Your task to perform on an android device: Open calendar and show me the second week of next month Image 0: 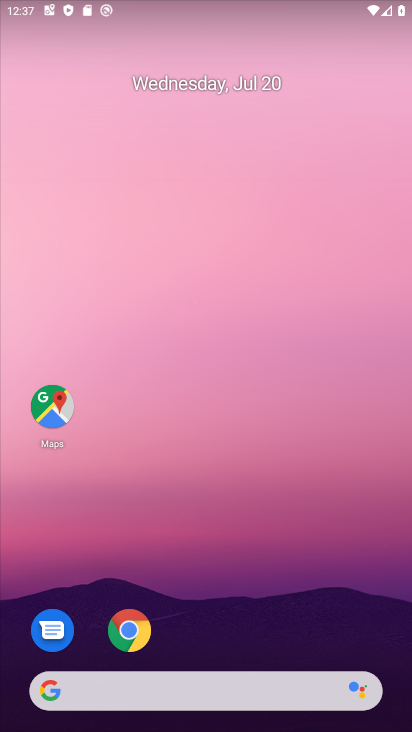
Step 0: press home button
Your task to perform on an android device: Open calendar and show me the second week of next month Image 1: 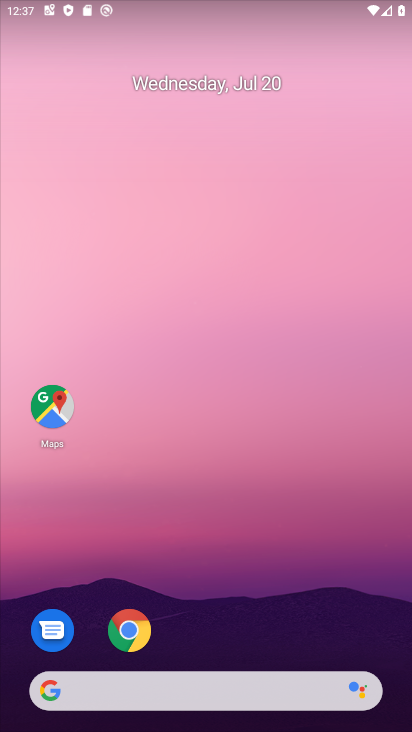
Step 1: drag from (271, 633) to (216, 126)
Your task to perform on an android device: Open calendar and show me the second week of next month Image 2: 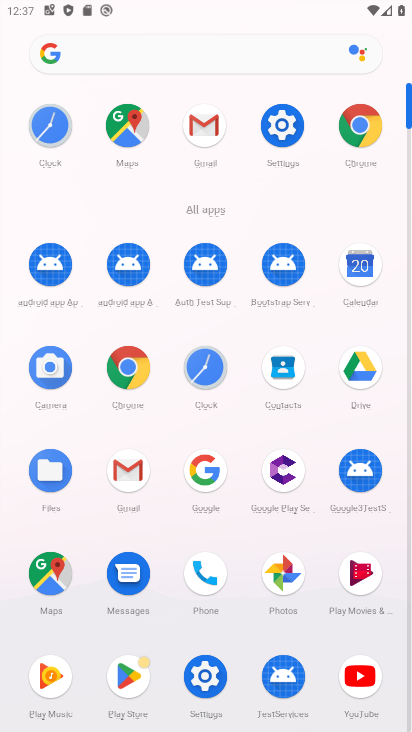
Step 2: click (368, 255)
Your task to perform on an android device: Open calendar and show me the second week of next month Image 3: 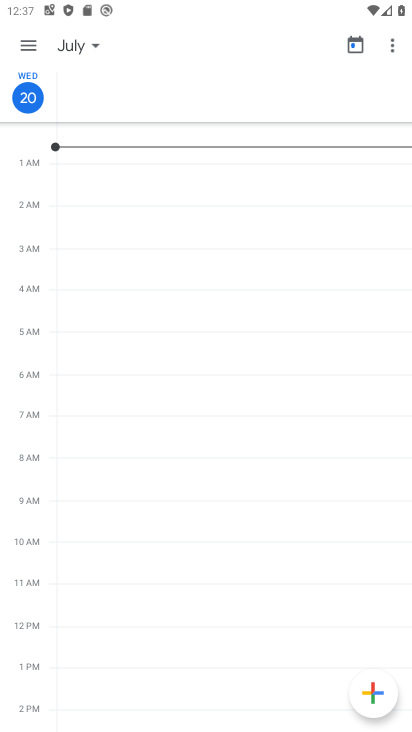
Step 3: click (25, 42)
Your task to perform on an android device: Open calendar and show me the second week of next month Image 4: 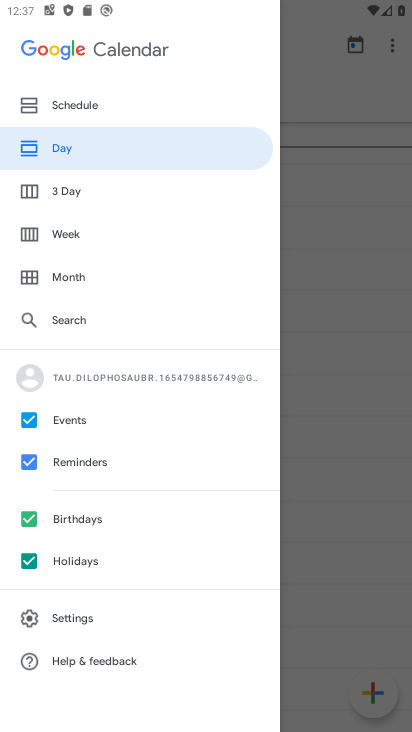
Step 4: click (62, 277)
Your task to perform on an android device: Open calendar and show me the second week of next month Image 5: 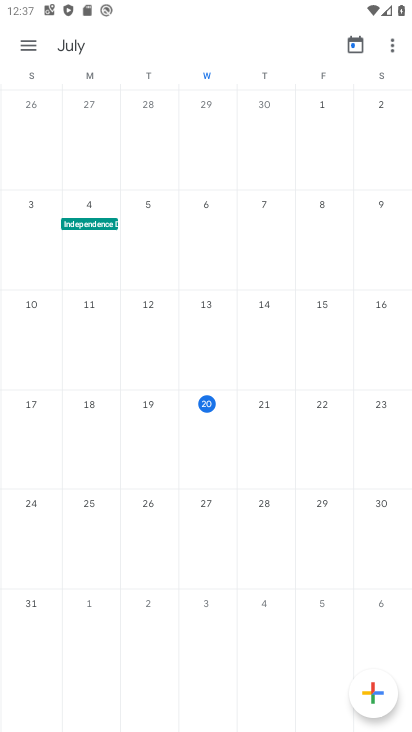
Step 5: drag from (368, 356) to (3, 340)
Your task to perform on an android device: Open calendar and show me the second week of next month Image 6: 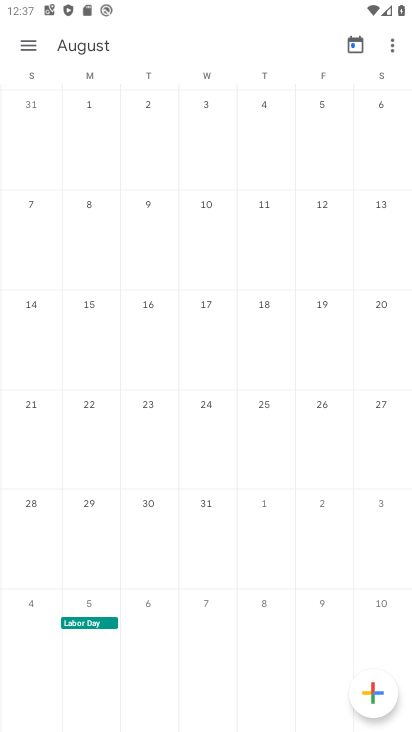
Step 6: click (29, 44)
Your task to perform on an android device: Open calendar and show me the second week of next month Image 7: 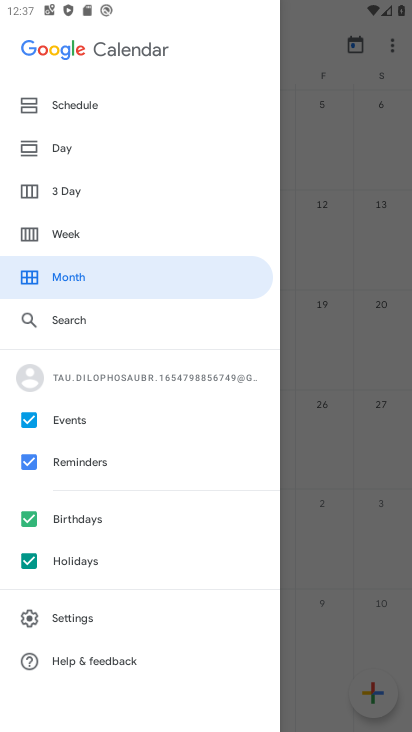
Step 7: click (67, 233)
Your task to perform on an android device: Open calendar and show me the second week of next month Image 8: 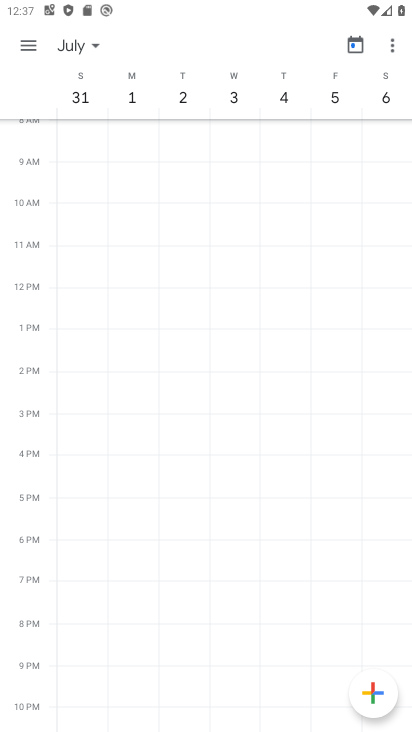
Step 8: task complete